Your task to perform on an android device: toggle show notifications on the lock screen Image 0: 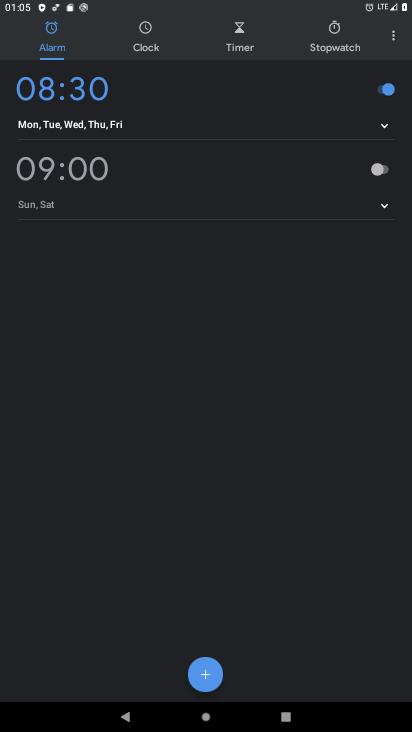
Step 0: press home button
Your task to perform on an android device: toggle show notifications on the lock screen Image 1: 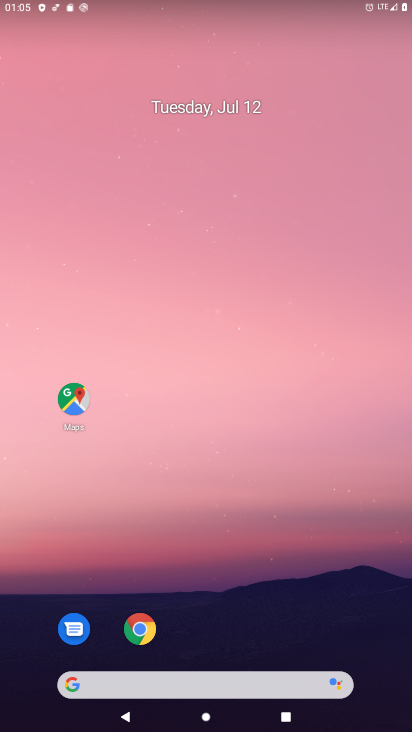
Step 1: drag from (103, 546) to (265, 30)
Your task to perform on an android device: toggle show notifications on the lock screen Image 2: 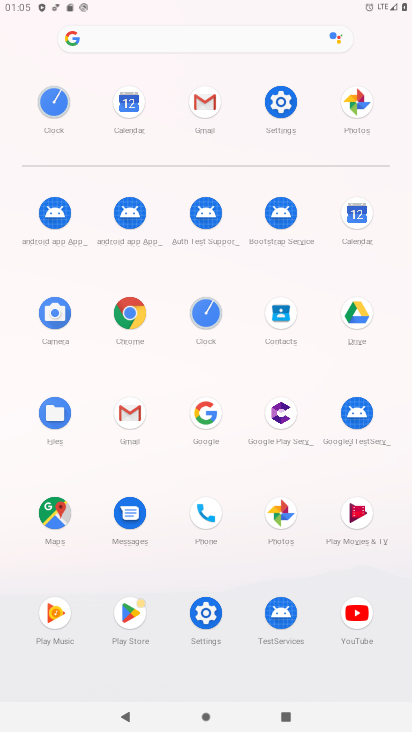
Step 2: click (130, 411)
Your task to perform on an android device: toggle show notifications on the lock screen Image 3: 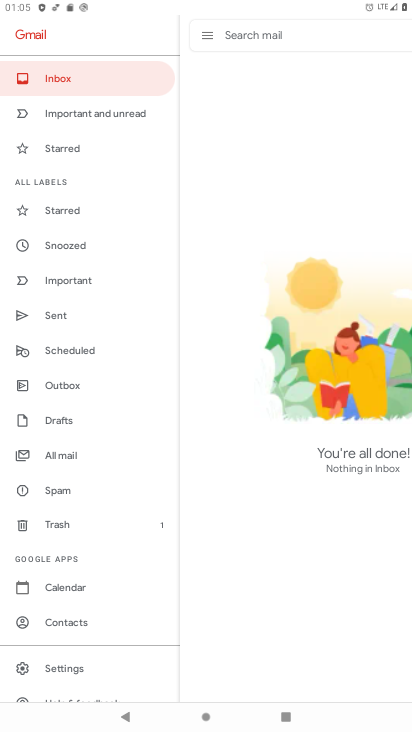
Step 3: task complete